Your task to perform on an android device: turn off javascript in the chrome app Image 0: 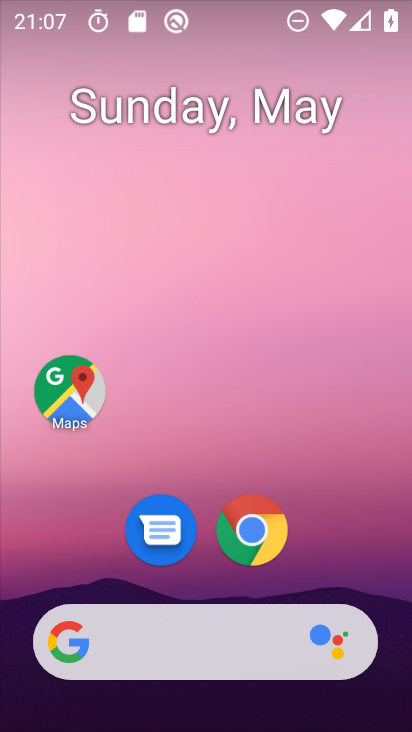
Step 0: drag from (224, 694) to (262, 100)
Your task to perform on an android device: turn off javascript in the chrome app Image 1: 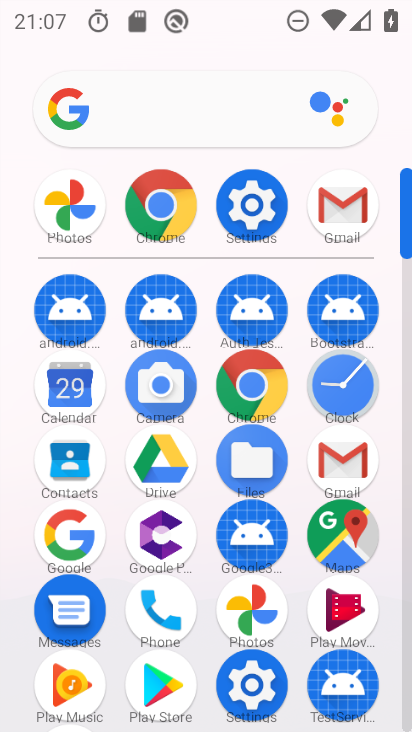
Step 1: click (239, 226)
Your task to perform on an android device: turn off javascript in the chrome app Image 2: 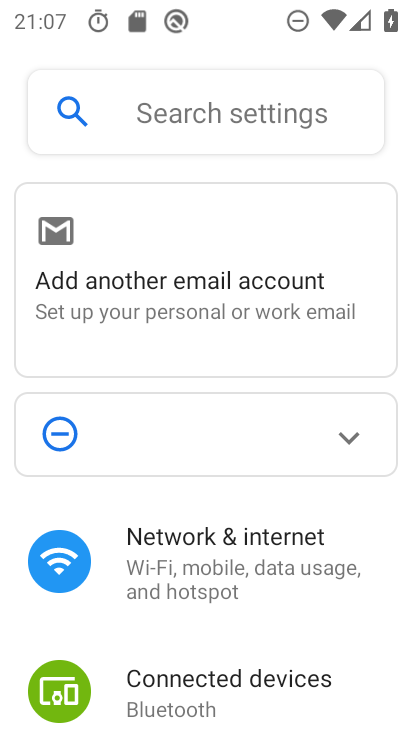
Step 2: press home button
Your task to perform on an android device: turn off javascript in the chrome app Image 3: 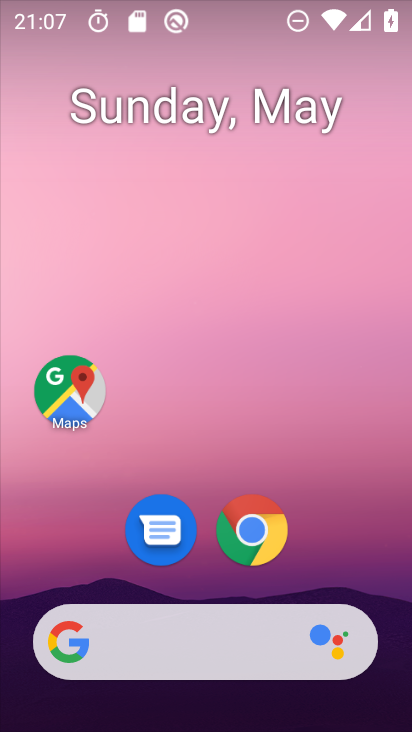
Step 3: drag from (224, 654) to (319, 213)
Your task to perform on an android device: turn off javascript in the chrome app Image 4: 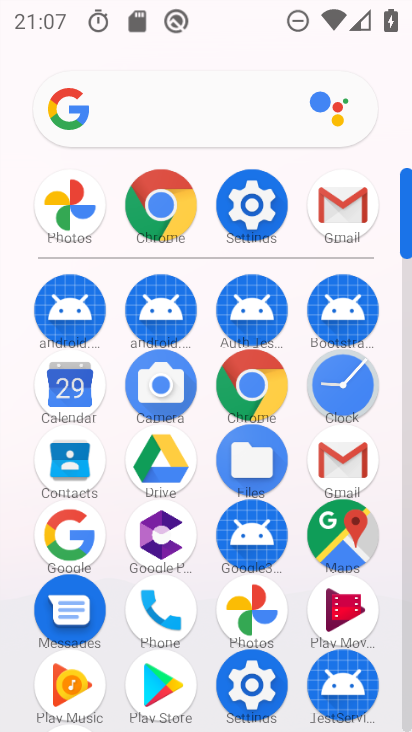
Step 4: click (243, 379)
Your task to perform on an android device: turn off javascript in the chrome app Image 5: 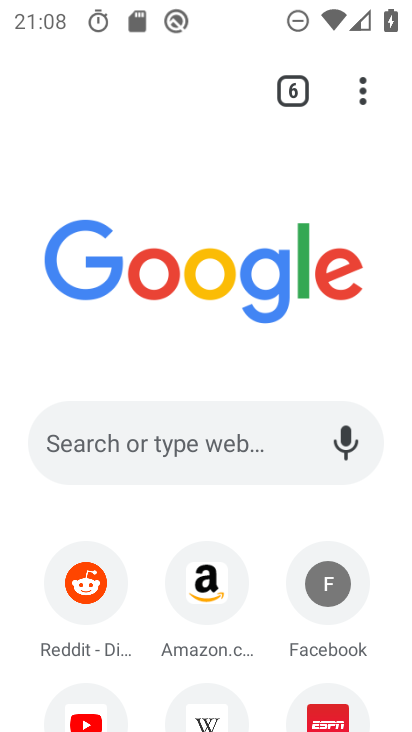
Step 5: click (363, 83)
Your task to perform on an android device: turn off javascript in the chrome app Image 6: 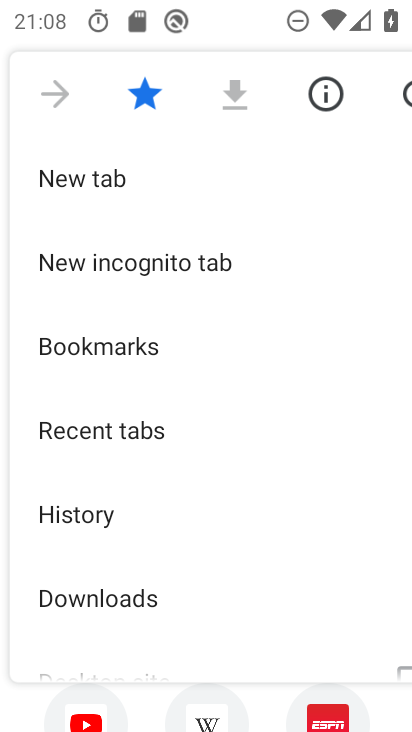
Step 6: drag from (151, 501) to (255, 183)
Your task to perform on an android device: turn off javascript in the chrome app Image 7: 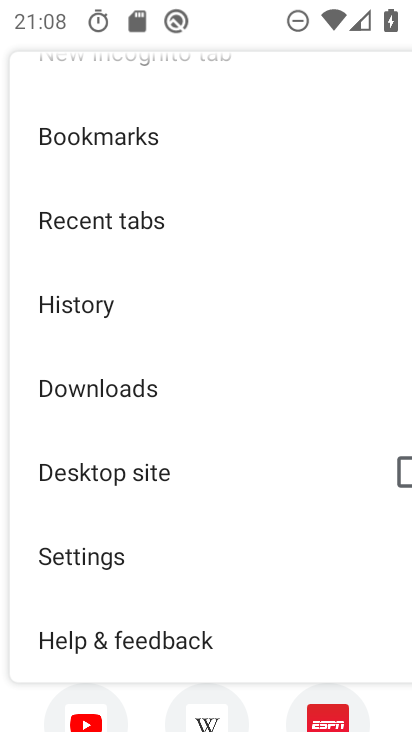
Step 7: click (71, 543)
Your task to perform on an android device: turn off javascript in the chrome app Image 8: 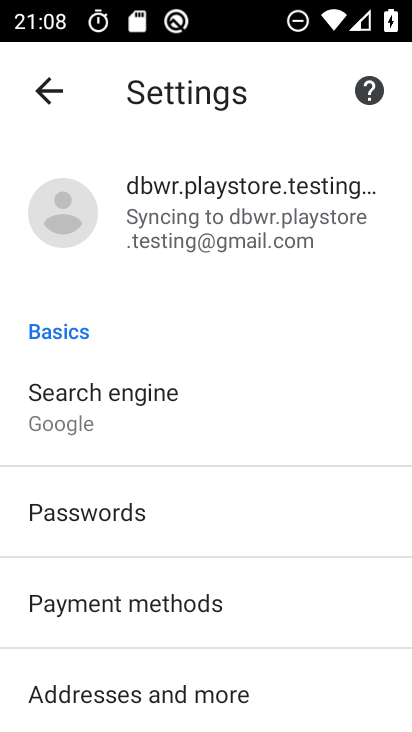
Step 8: drag from (227, 635) to (297, 325)
Your task to perform on an android device: turn off javascript in the chrome app Image 9: 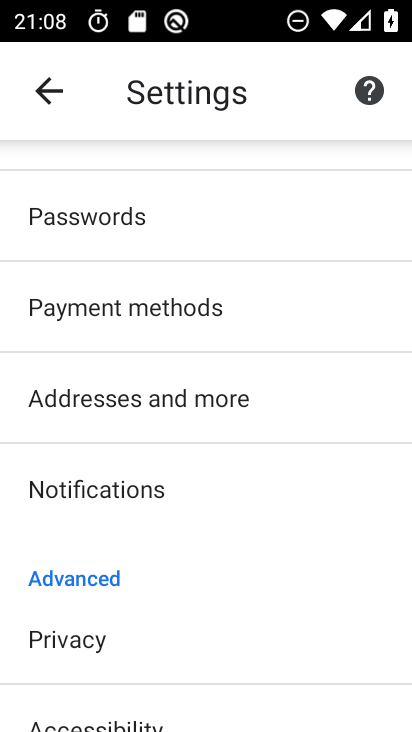
Step 9: drag from (200, 643) to (237, 276)
Your task to perform on an android device: turn off javascript in the chrome app Image 10: 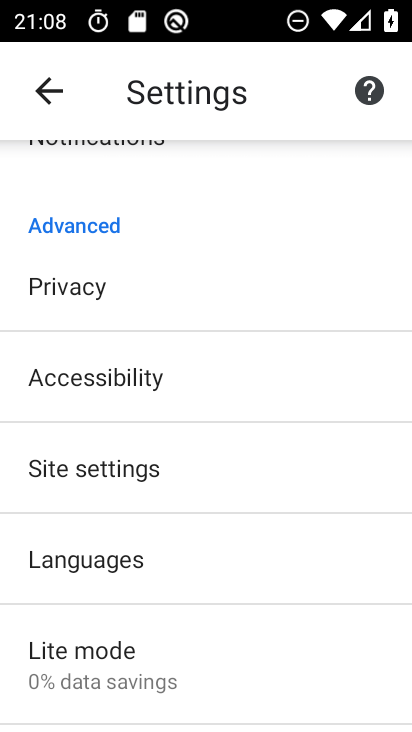
Step 10: click (101, 477)
Your task to perform on an android device: turn off javascript in the chrome app Image 11: 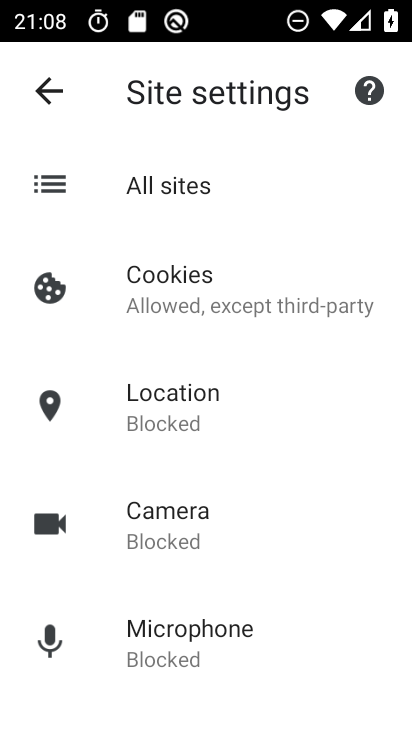
Step 11: drag from (174, 544) to (287, 223)
Your task to perform on an android device: turn off javascript in the chrome app Image 12: 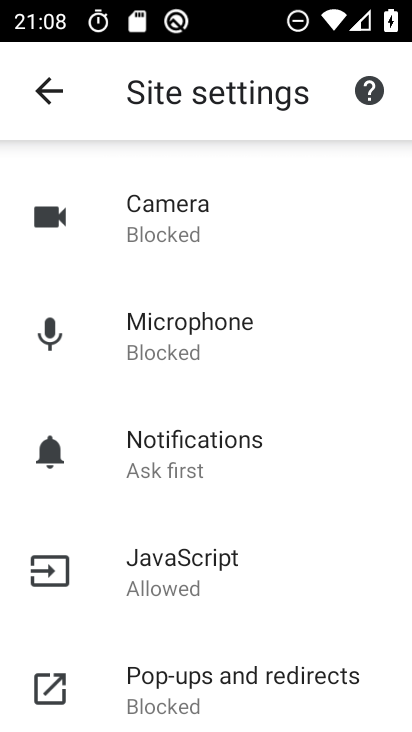
Step 12: click (134, 563)
Your task to perform on an android device: turn off javascript in the chrome app Image 13: 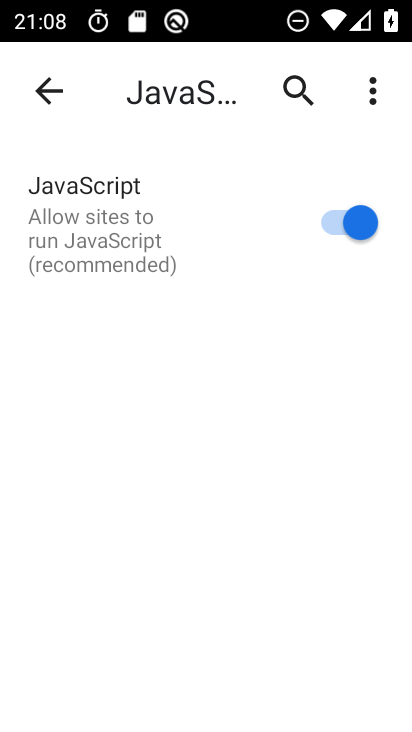
Step 13: click (347, 223)
Your task to perform on an android device: turn off javascript in the chrome app Image 14: 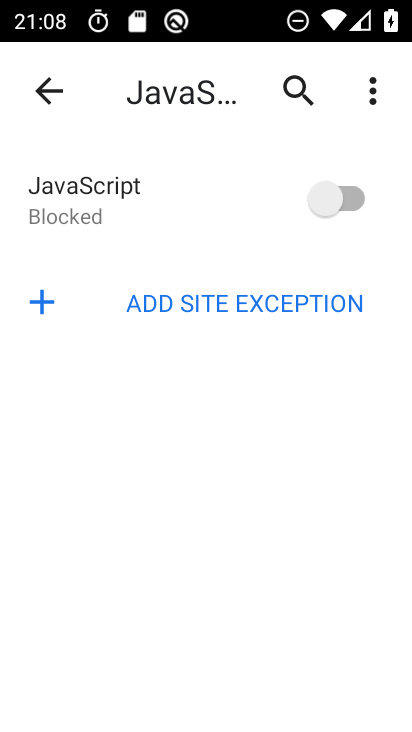
Step 14: task complete